Your task to perform on an android device: Show me recent news Image 0: 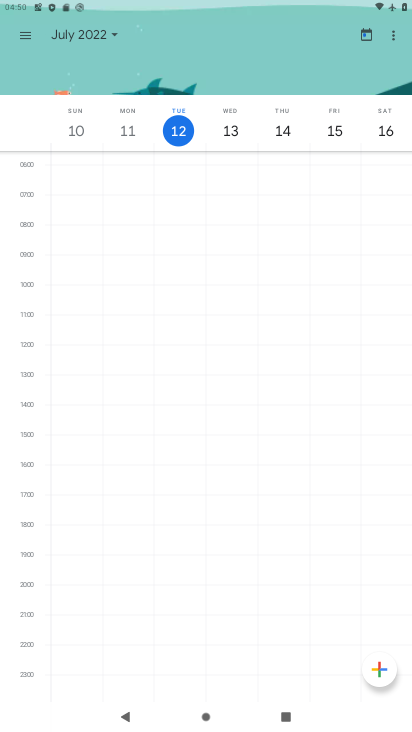
Step 0: press home button
Your task to perform on an android device: Show me recent news Image 1: 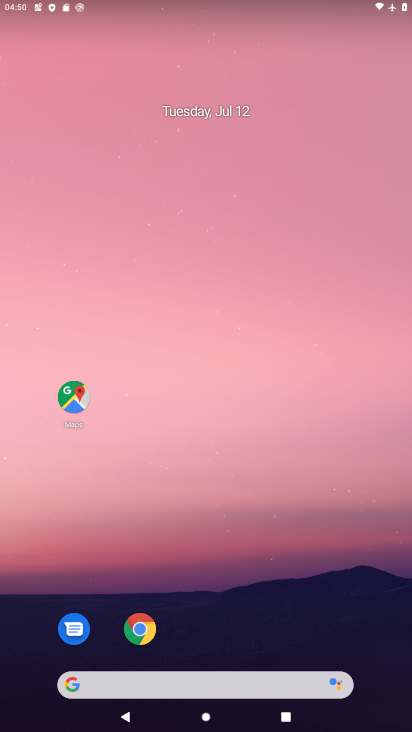
Step 1: drag from (248, 618) to (248, 133)
Your task to perform on an android device: Show me recent news Image 2: 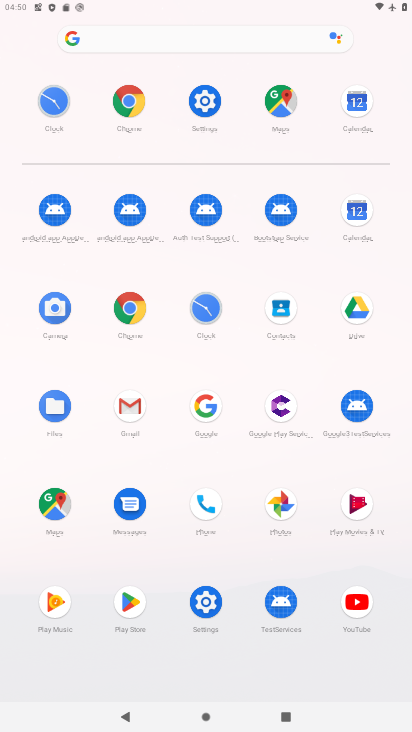
Step 2: click (126, 107)
Your task to perform on an android device: Show me recent news Image 3: 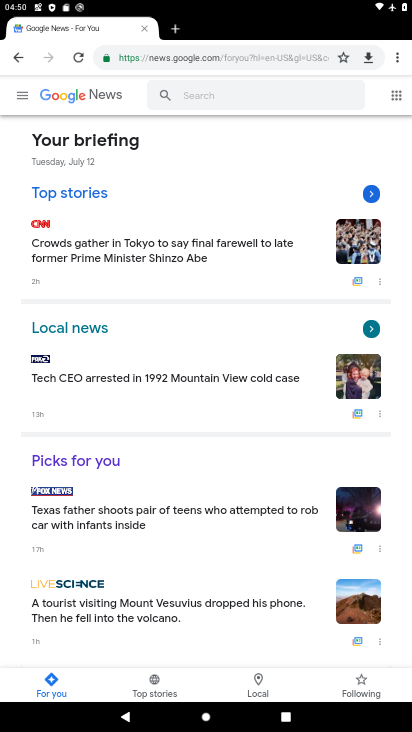
Step 3: task complete